Your task to perform on an android device: open chrome and create a bookmark for the current page Image 0: 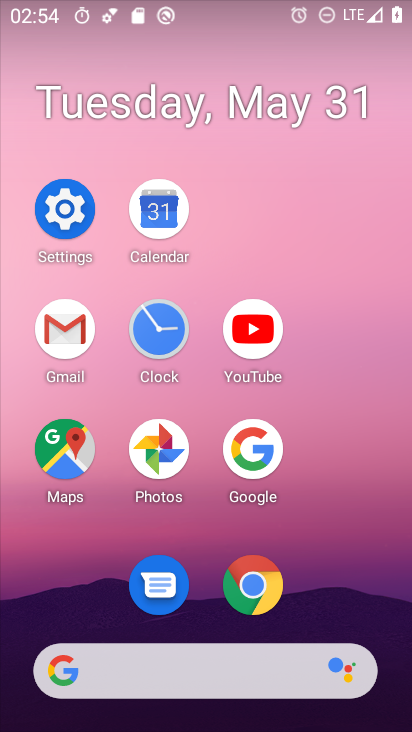
Step 0: click (245, 594)
Your task to perform on an android device: open chrome and create a bookmark for the current page Image 1: 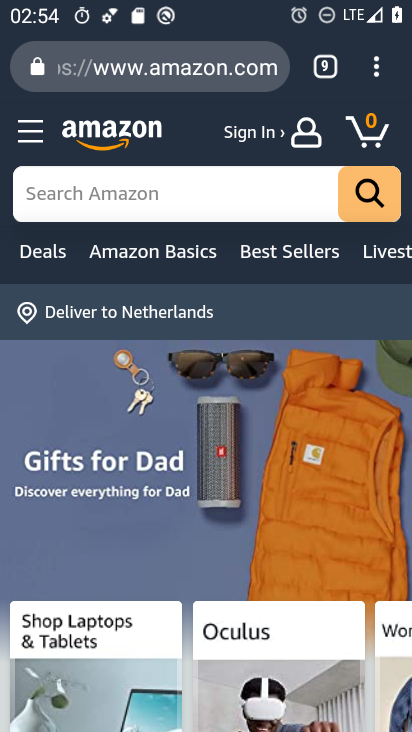
Step 1: click (367, 56)
Your task to perform on an android device: open chrome and create a bookmark for the current page Image 2: 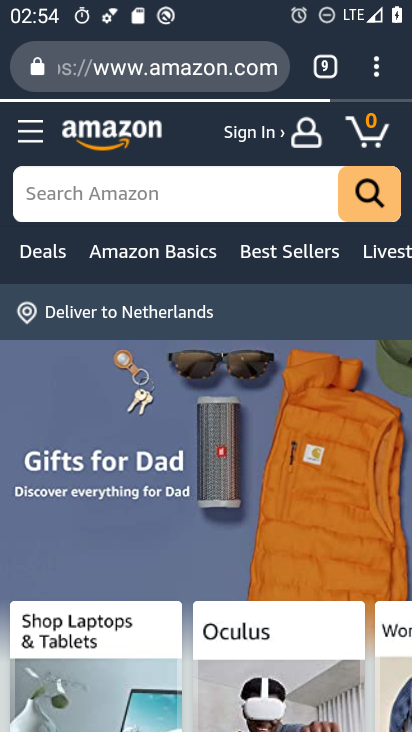
Step 2: click (384, 56)
Your task to perform on an android device: open chrome and create a bookmark for the current page Image 3: 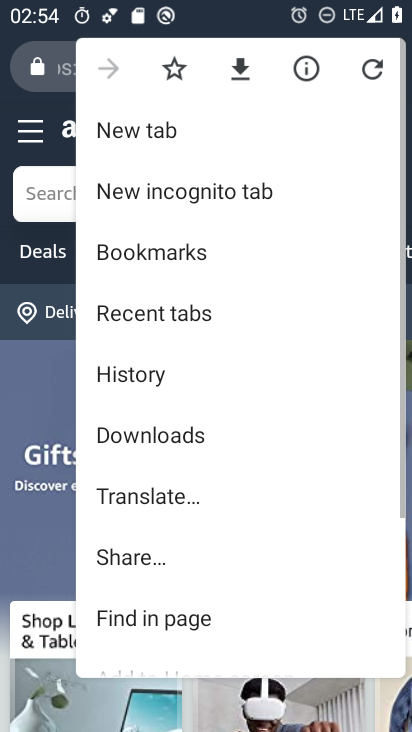
Step 3: click (174, 76)
Your task to perform on an android device: open chrome and create a bookmark for the current page Image 4: 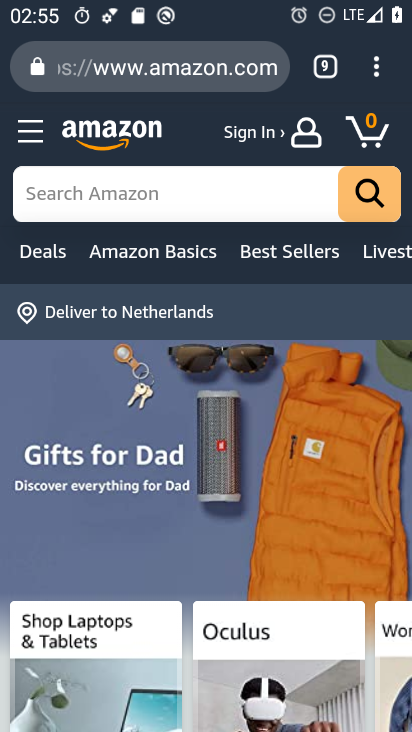
Step 4: task complete